Your task to perform on an android device: move an email to a new category in the gmail app Image 0: 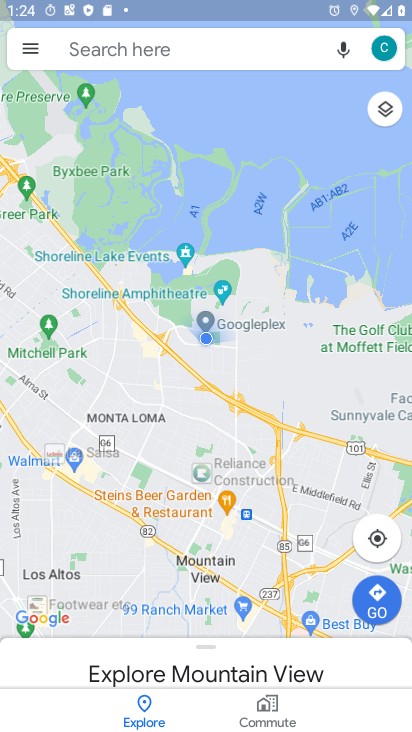
Step 0: drag from (63, 467) to (138, 197)
Your task to perform on an android device: move an email to a new category in the gmail app Image 1: 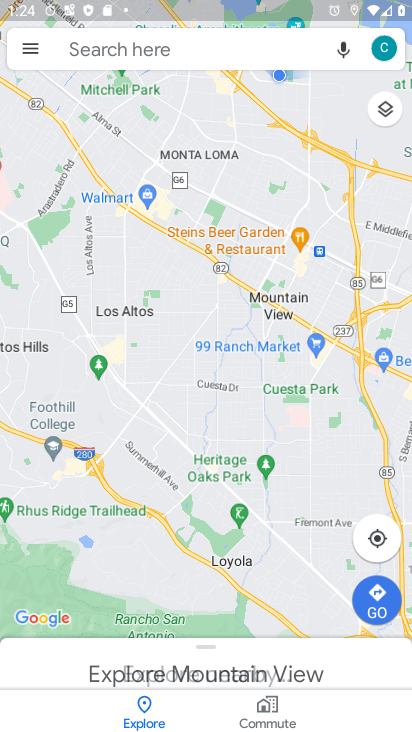
Step 1: press home button
Your task to perform on an android device: move an email to a new category in the gmail app Image 2: 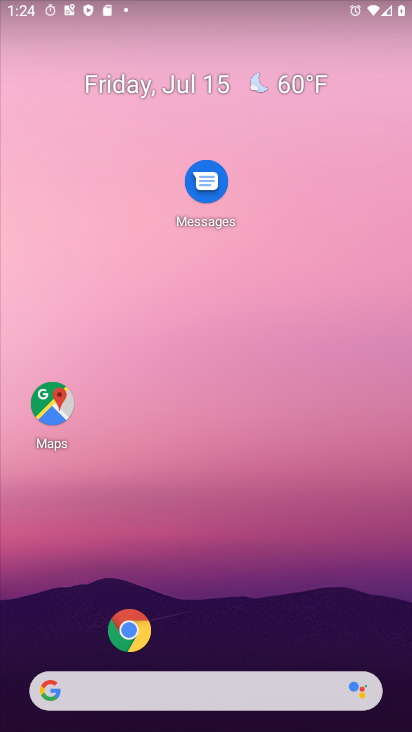
Step 2: drag from (27, 609) to (190, 185)
Your task to perform on an android device: move an email to a new category in the gmail app Image 3: 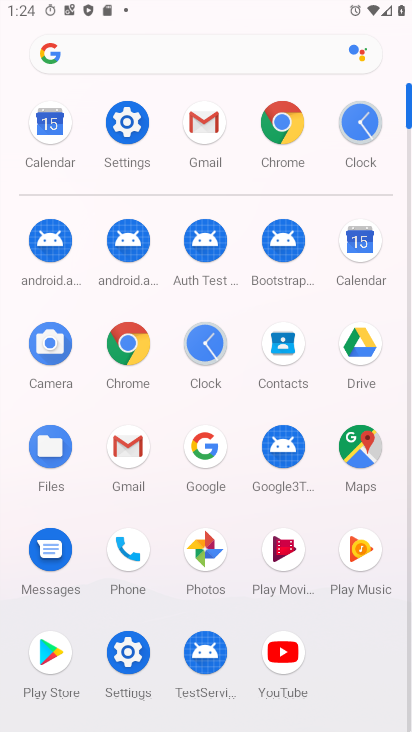
Step 3: click (123, 446)
Your task to perform on an android device: move an email to a new category in the gmail app Image 4: 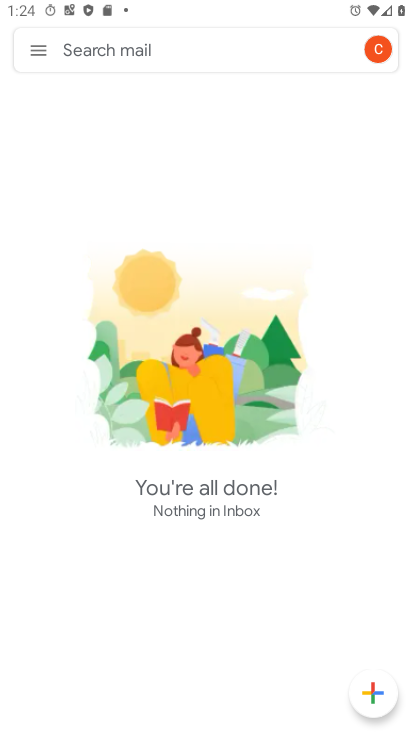
Step 4: click (40, 53)
Your task to perform on an android device: move an email to a new category in the gmail app Image 5: 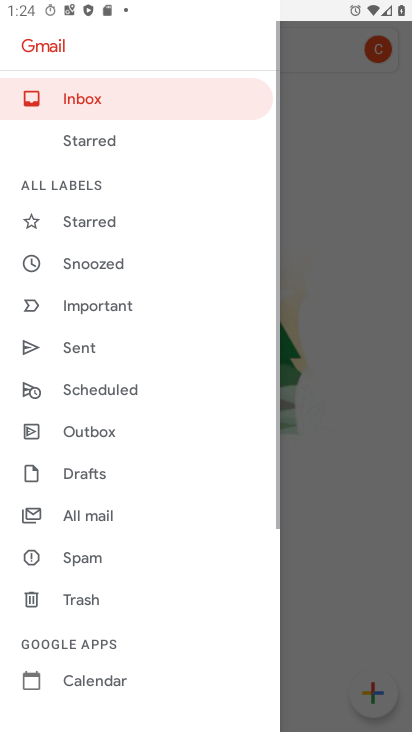
Step 5: click (74, 85)
Your task to perform on an android device: move an email to a new category in the gmail app Image 6: 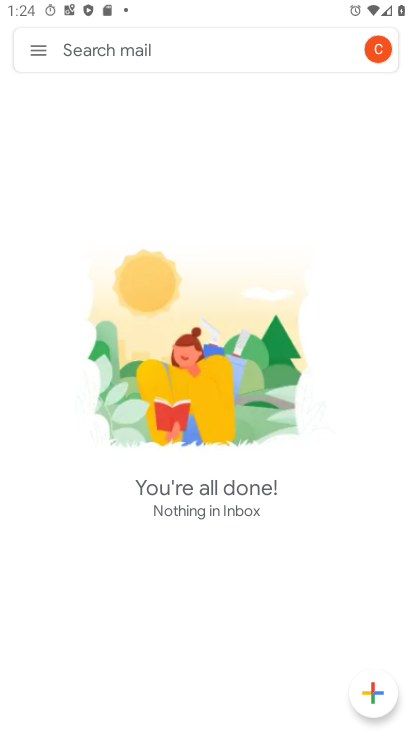
Step 6: task complete